Your task to perform on an android device: uninstall "ZOOM Cloud Meetings" Image 0: 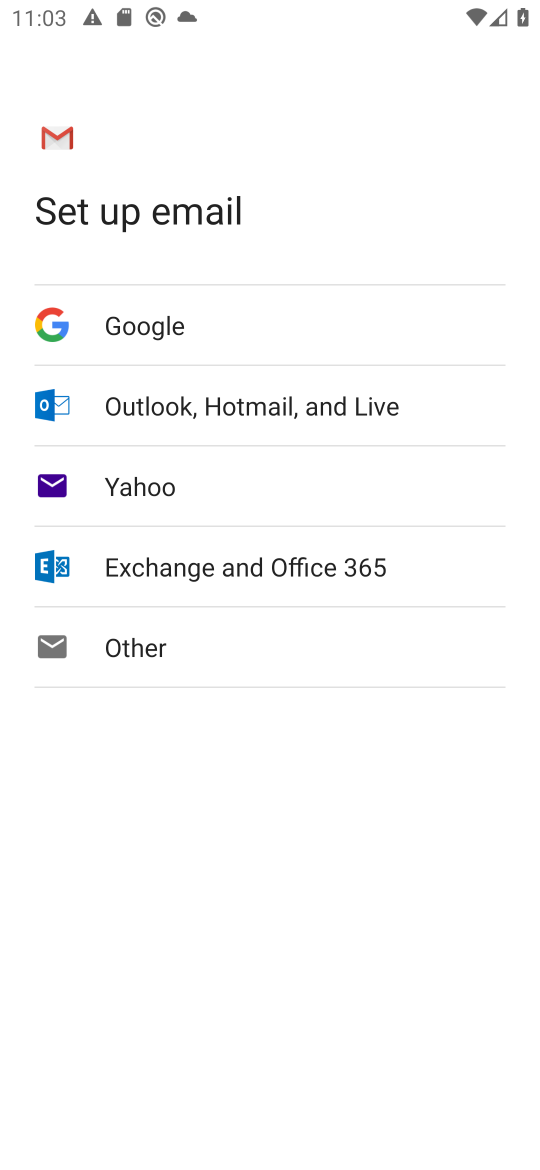
Step 0: press home button
Your task to perform on an android device: uninstall "ZOOM Cloud Meetings" Image 1: 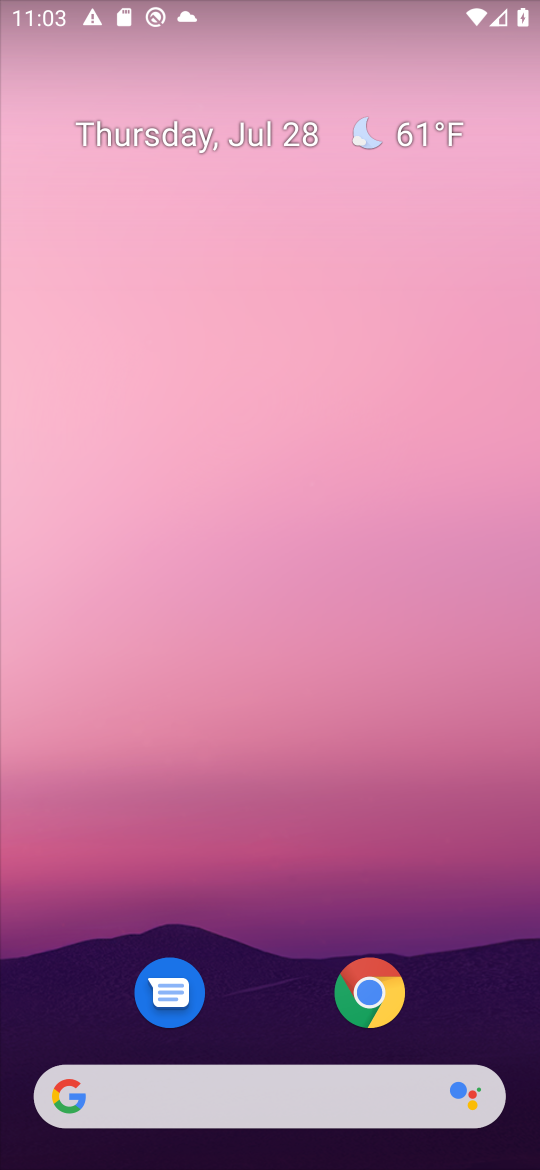
Step 1: drag from (187, 1099) to (183, 409)
Your task to perform on an android device: uninstall "ZOOM Cloud Meetings" Image 2: 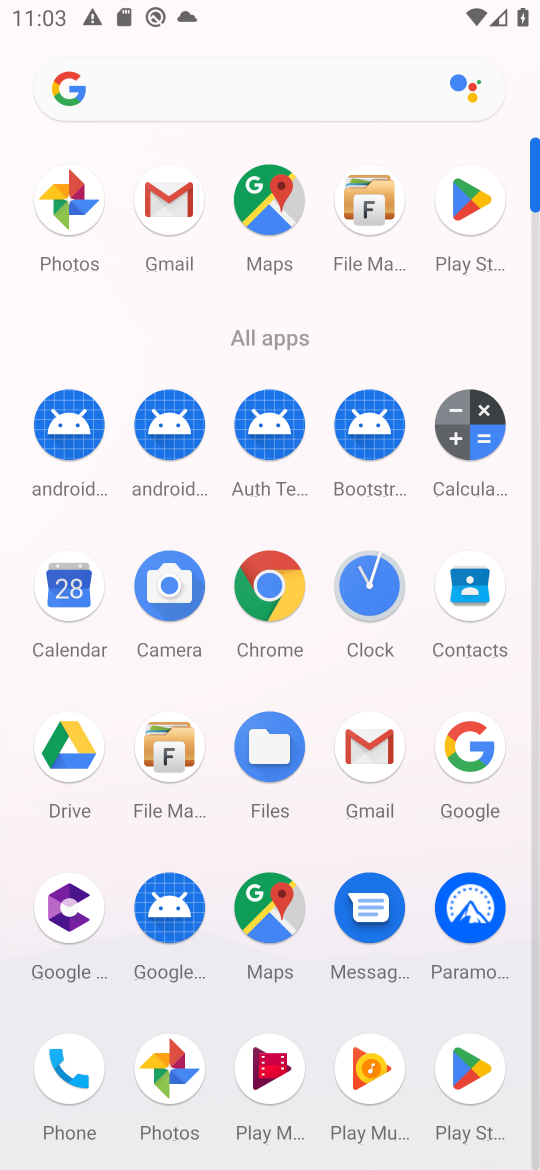
Step 2: click (472, 202)
Your task to perform on an android device: uninstall "ZOOM Cloud Meetings" Image 3: 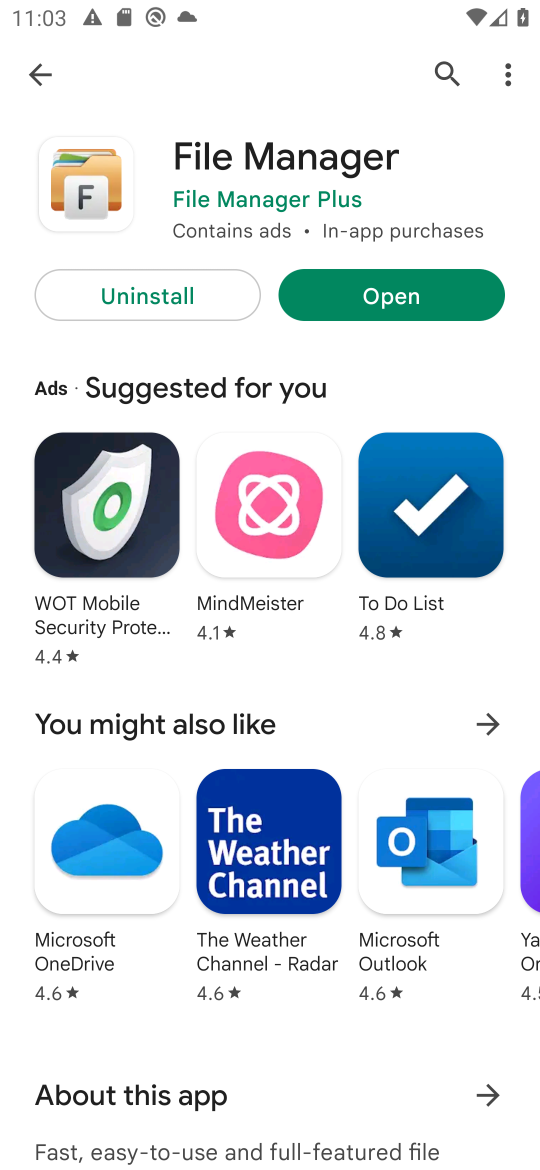
Step 3: click (446, 72)
Your task to perform on an android device: uninstall "ZOOM Cloud Meetings" Image 4: 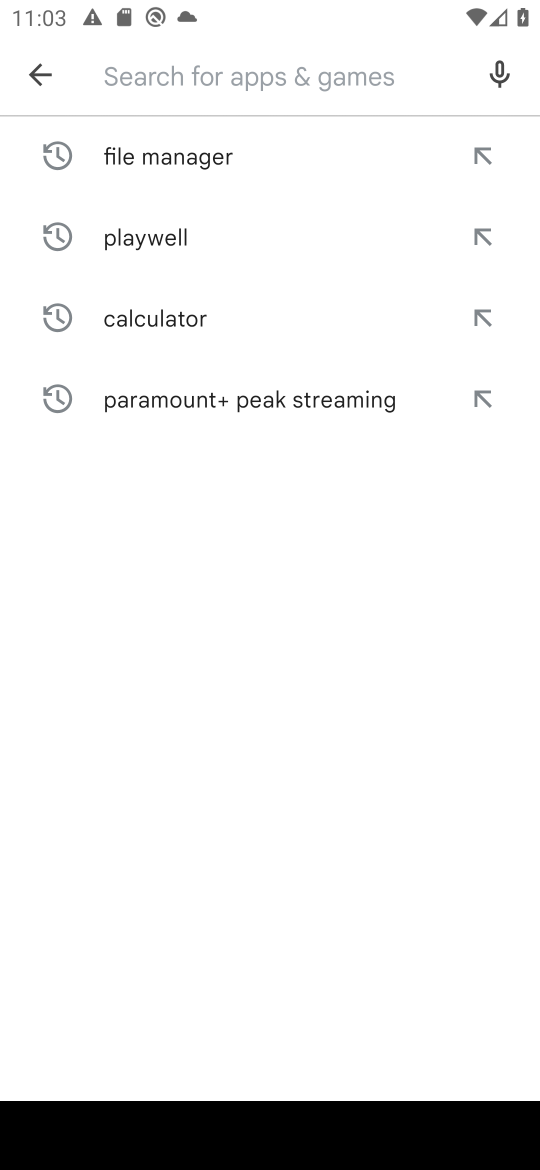
Step 4: type "ZOOM Cloud Meetings"
Your task to perform on an android device: uninstall "ZOOM Cloud Meetings" Image 5: 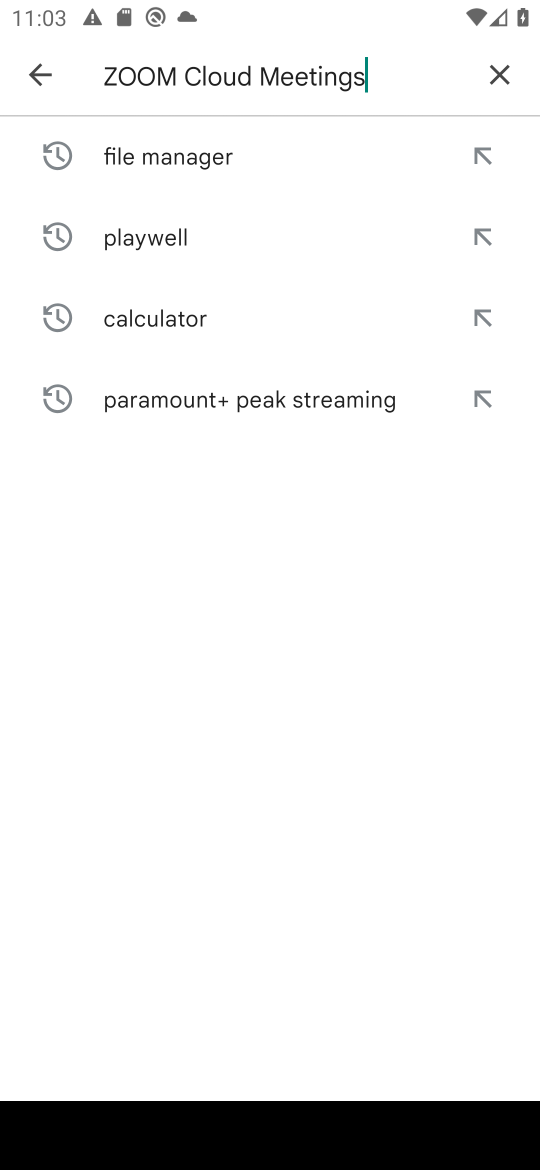
Step 5: type ""
Your task to perform on an android device: uninstall "ZOOM Cloud Meetings" Image 6: 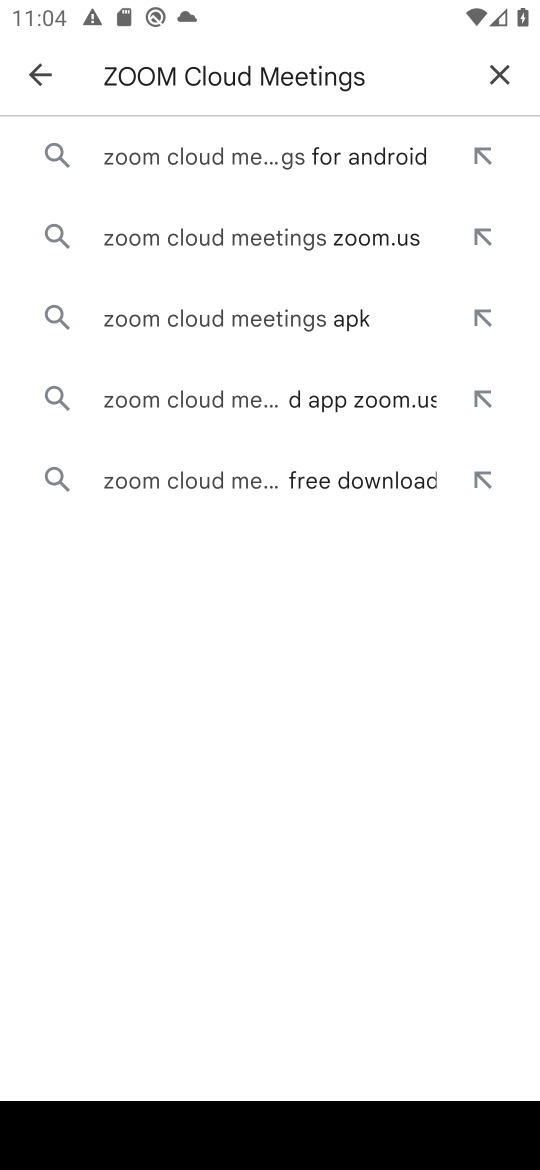
Step 6: click (211, 157)
Your task to perform on an android device: uninstall "ZOOM Cloud Meetings" Image 7: 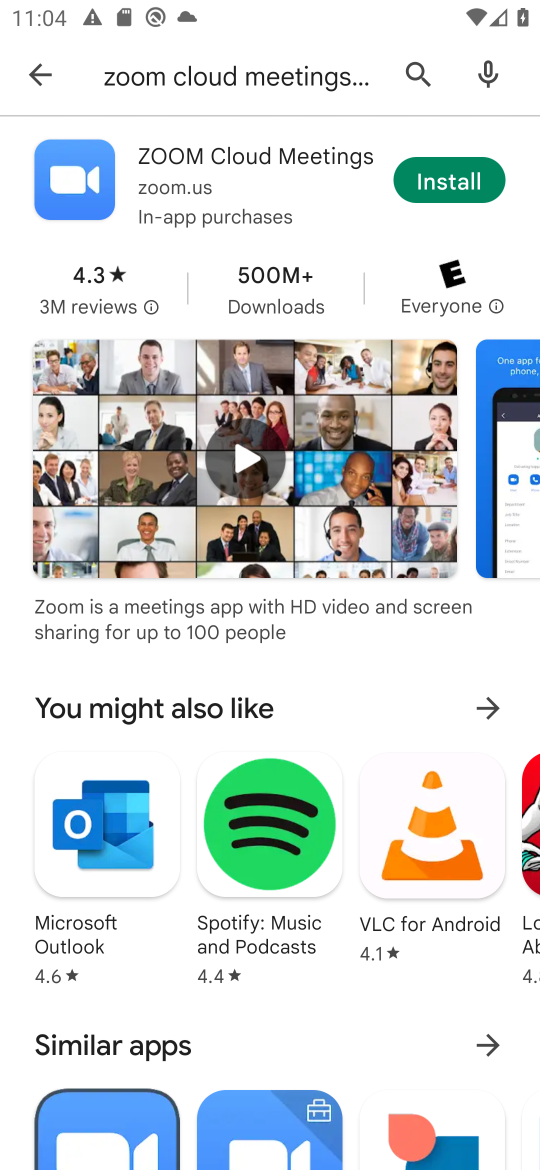
Step 7: task complete